Your task to perform on an android device: turn on translation in the chrome app Image 0: 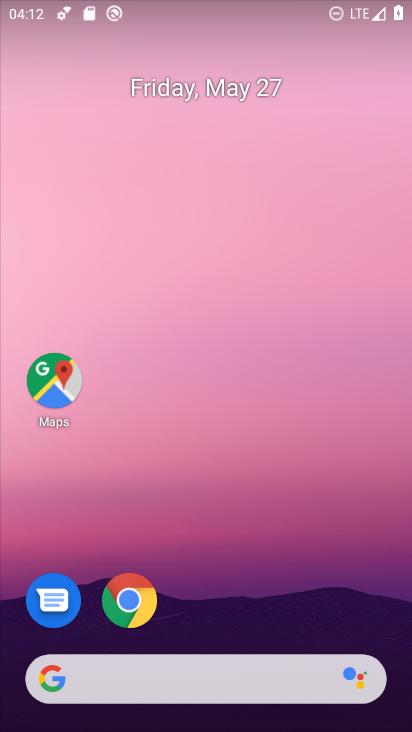
Step 0: click (129, 603)
Your task to perform on an android device: turn on translation in the chrome app Image 1: 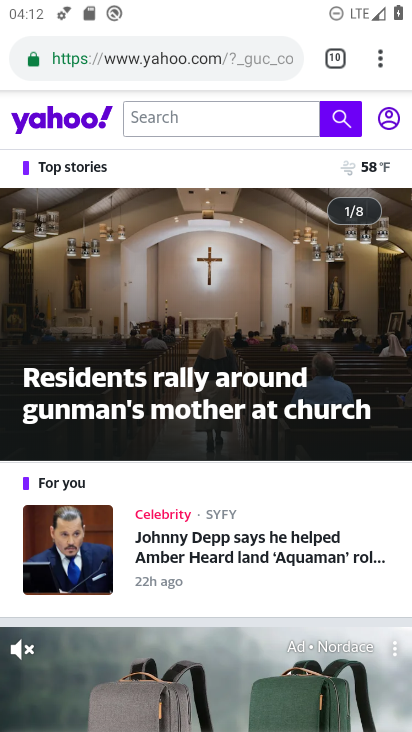
Step 1: click (381, 67)
Your task to perform on an android device: turn on translation in the chrome app Image 2: 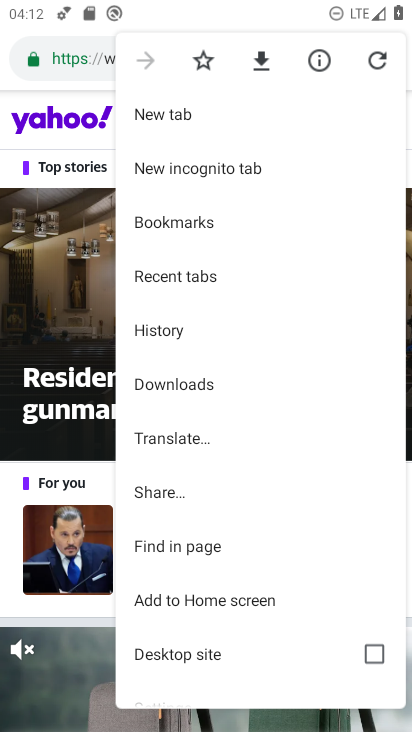
Step 2: drag from (173, 639) to (176, 217)
Your task to perform on an android device: turn on translation in the chrome app Image 3: 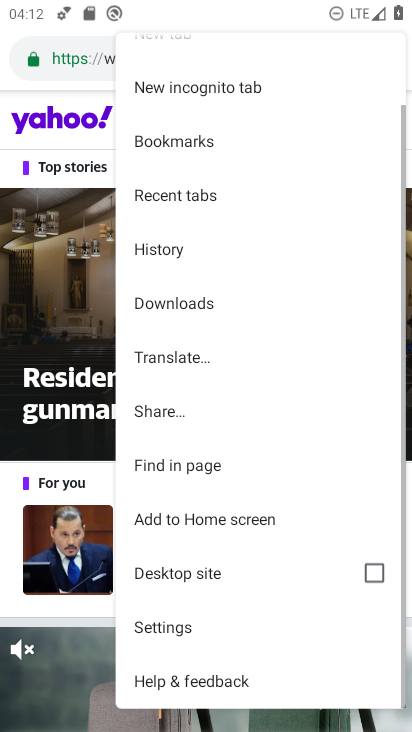
Step 3: click (173, 621)
Your task to perform on an android device: turn on translation in the chrome app Image 4: 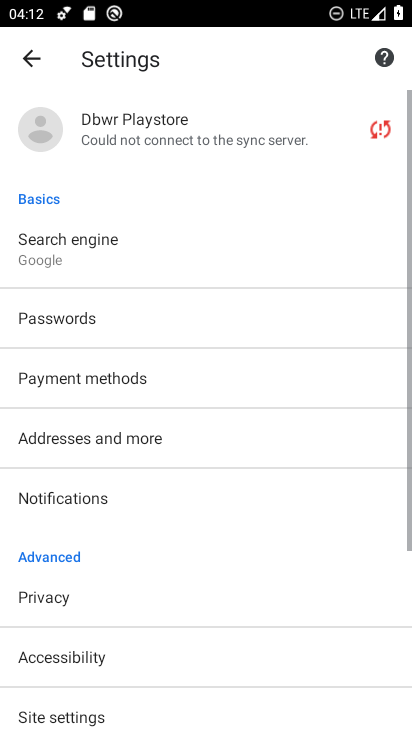
Step 4: drag from (107, 678) to (131, 327)
Your task to perform on an android device: turn on translation in the chrome app Image 5: 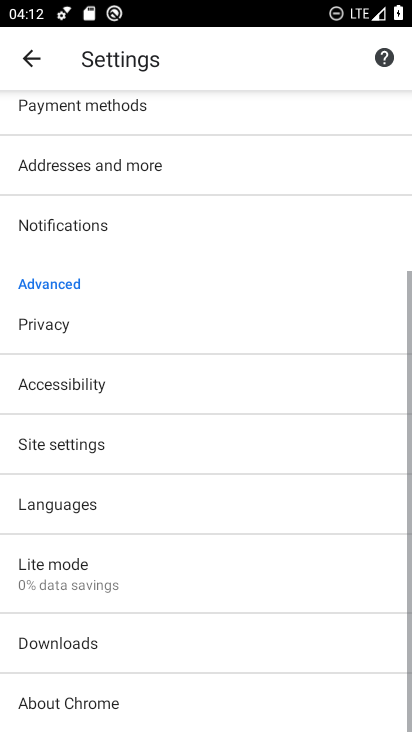
Step 5: click (74, 501)
Your task to perform on an android device: turn on translation in the chrome app Image 6: 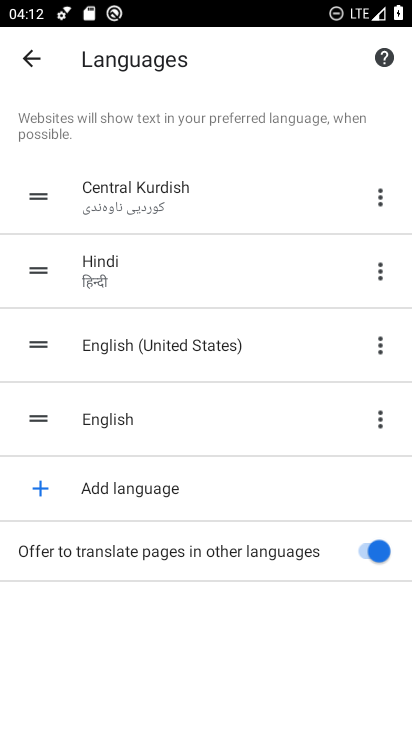
Step 6: task complete